Your task to perform on an android device: open wifi settings Image 0: 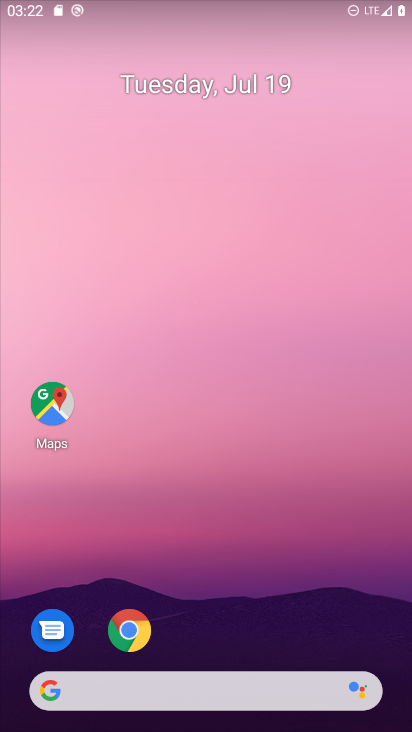
Step 0: drag from (350, 626) to (304, 46)
Your task to perform on an android device: open wifi settings Image 1: 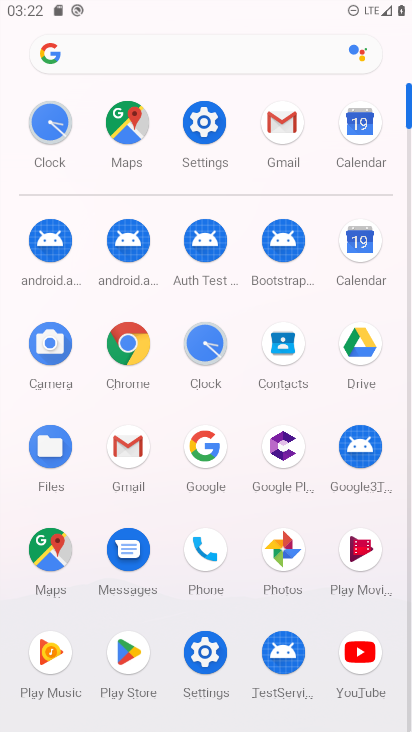
Step 1: click (205, 651)
Your task to perform on an android device: open wifi settings Image 2: 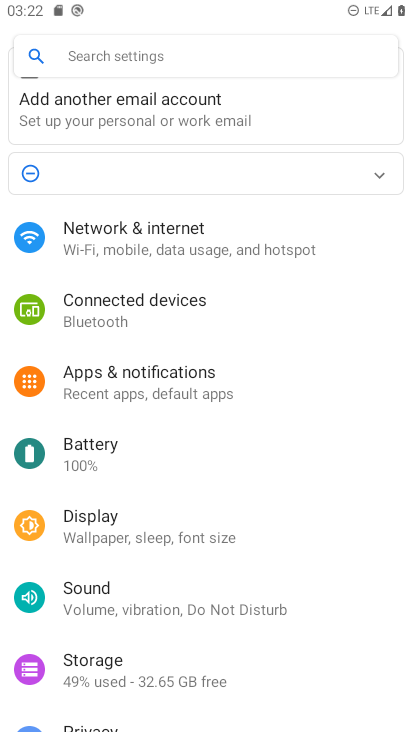
Step 2: click (133, 236)
Your task to perform on an android device: open wifi settings Image 3: 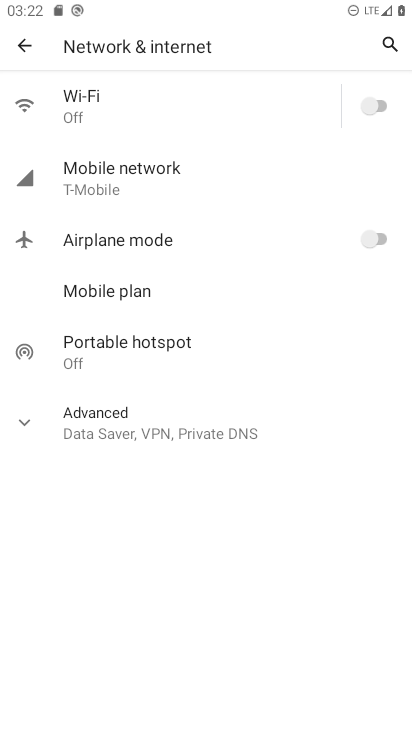
Step 3: click (85, 104)
Your task to perform on an android device: open wifi settings Image 4: 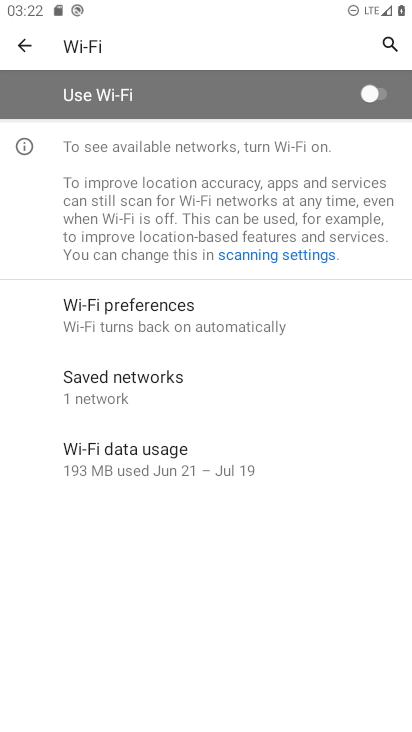
Step 4: task complete